Your task to perform on an android device: show emergency info Image 0: 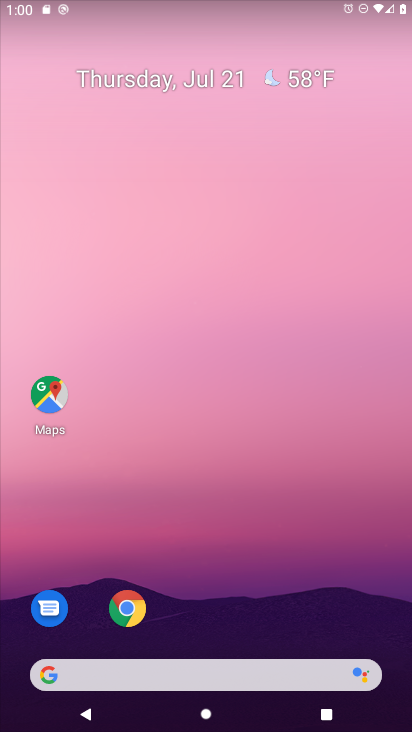
Step 0: press home button
Your task to perform on an android device: show emergency info Image 1: 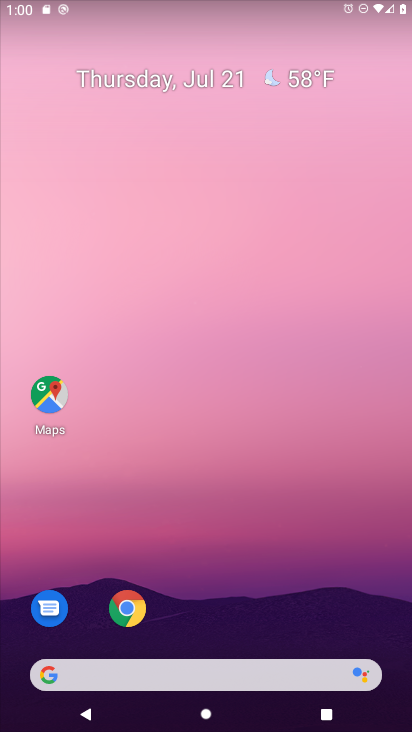
Step 1: drag from (281, 619) to (243, 0)
Your task to perform on an android device: show emergency info Image 2: 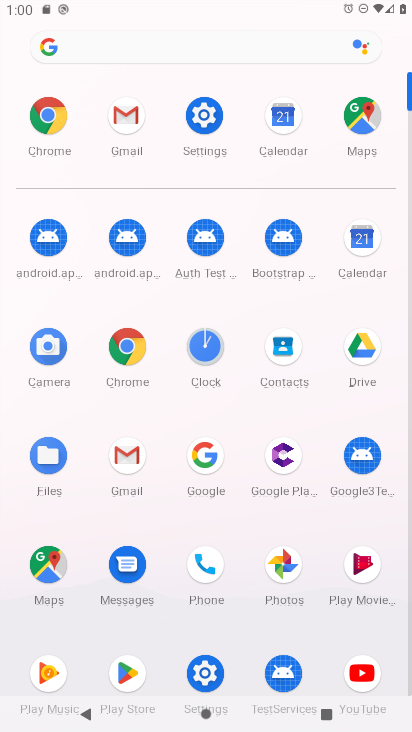
Step 2: click (199, 124)
Your task to perform on an android device: show emergency info Image 3: 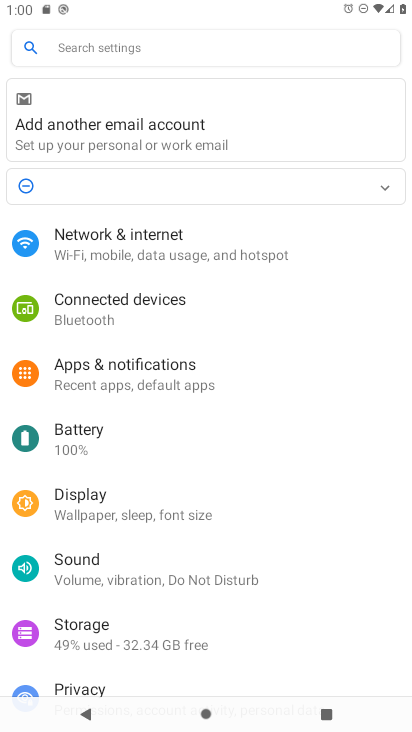
Step 3: drag from (282, 622) to (287, 16)
Your task to perform on an android device: show emergency info Image 4: 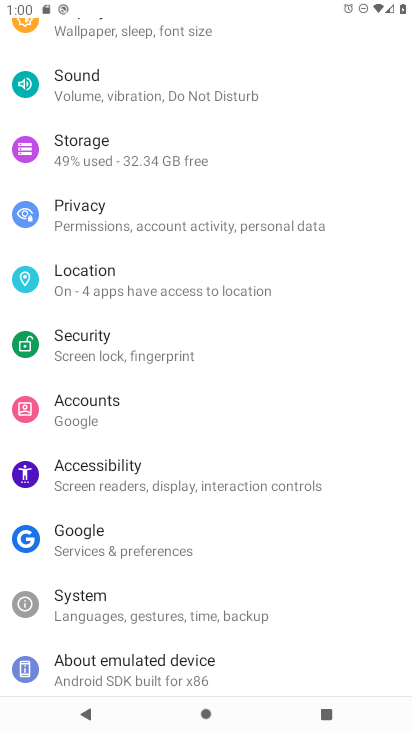
Step 4: click (90, 664)
Your task to perform on an android device: show emergency info Image 5: 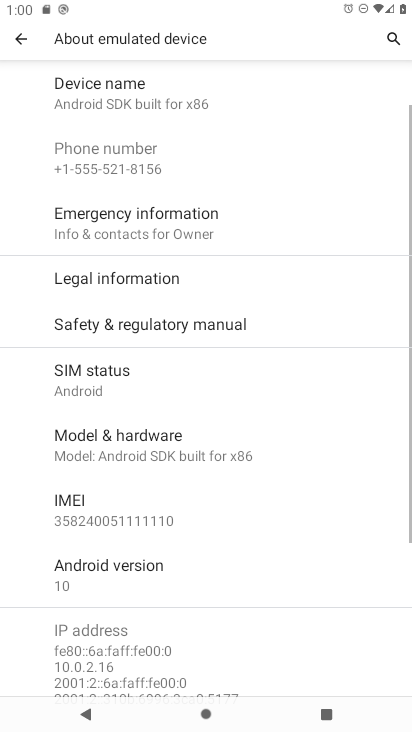
Step 5: click (111, 222)
Your task to perform on an android device: show emergency info Image 6: 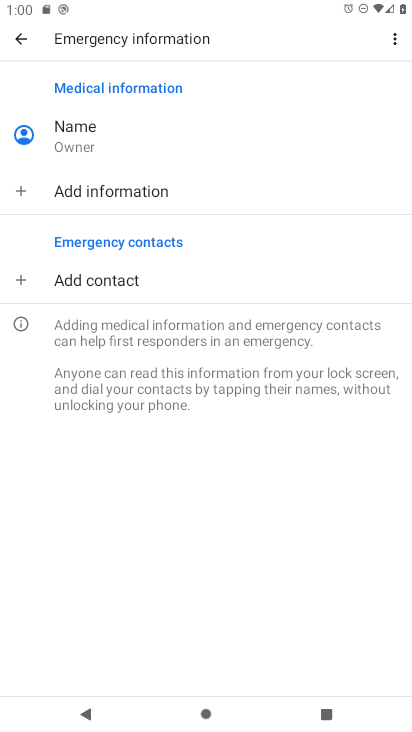
Step 6: task complete